Your task to perform on an android device: install app "Lyft - Rideshare, Bikes, Scooters & Transit" Image 0: 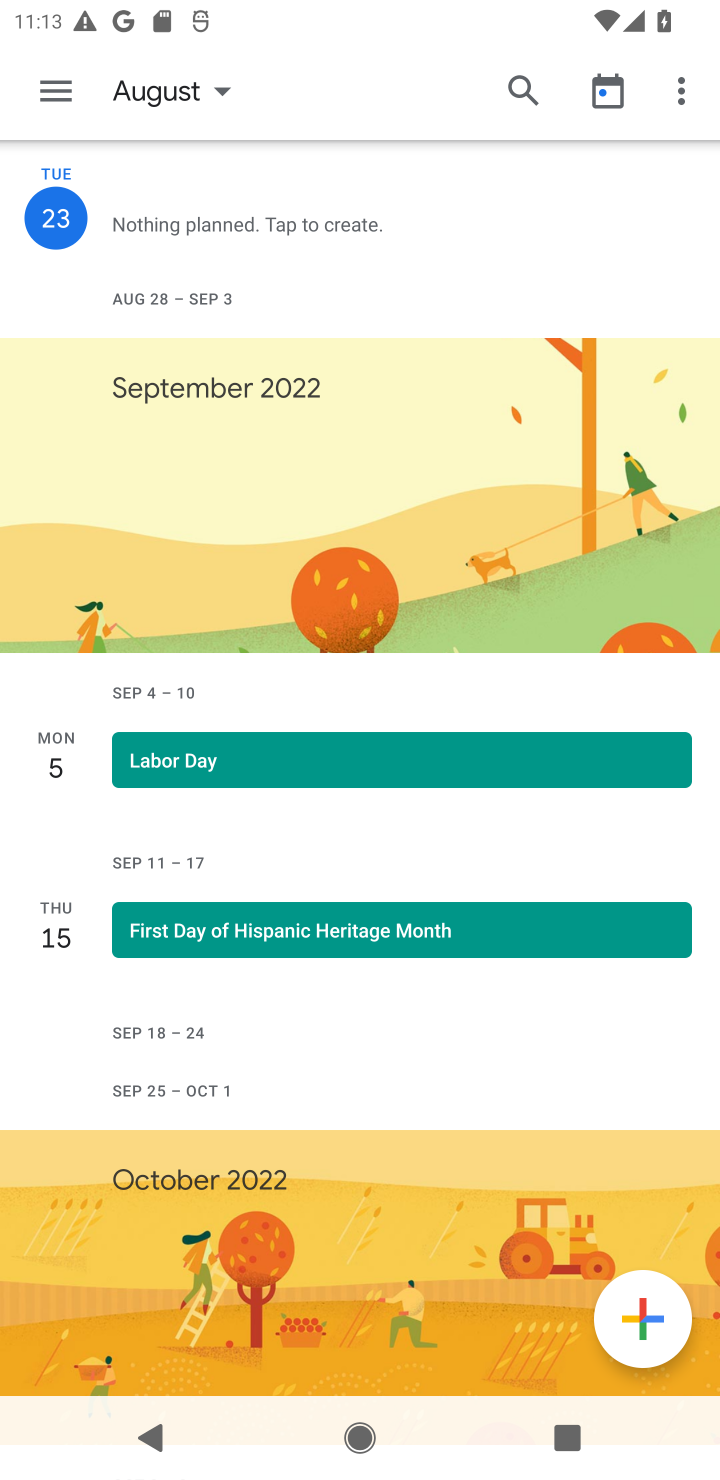
Step 0: press home button
Your task to perform on an android device: install app "Lyft - Rideshare, Bikes, Scooters & Transit" Image 1: 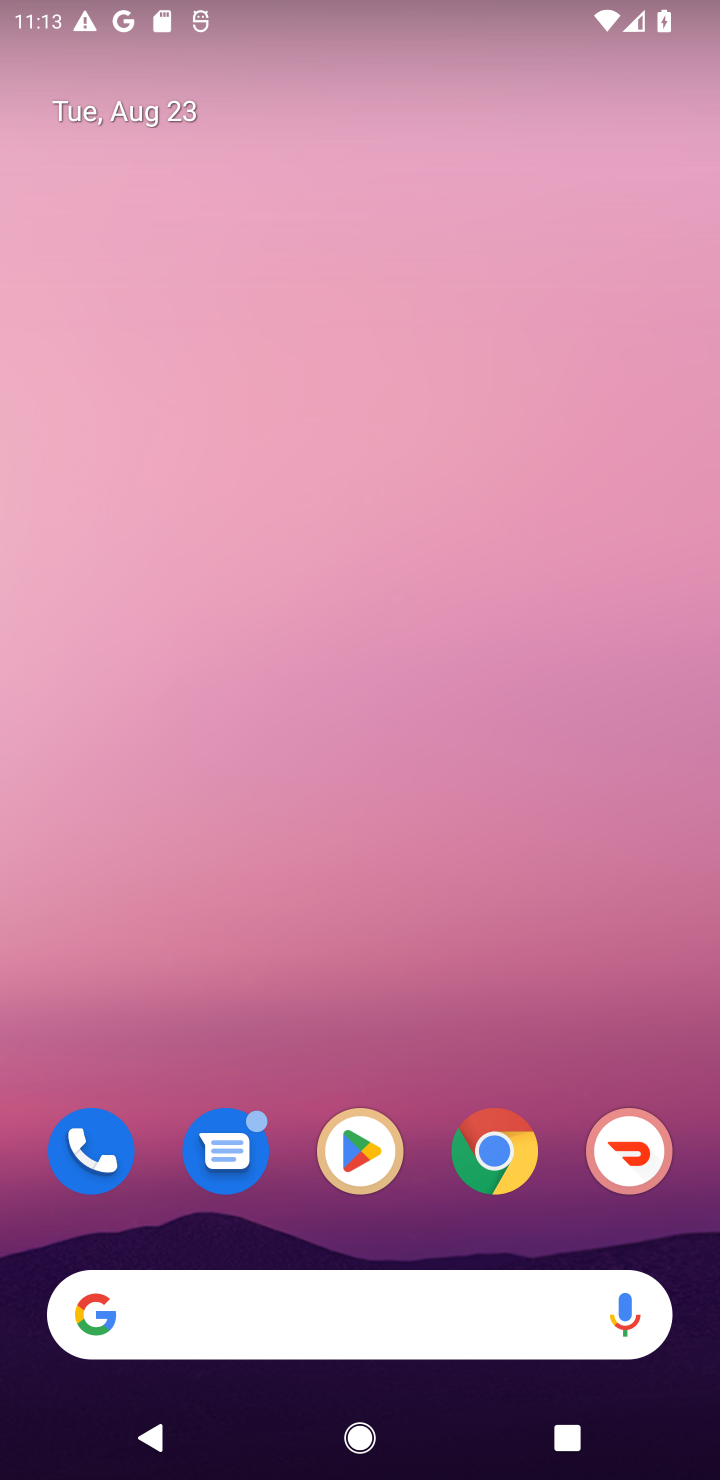
Step 1: click (391, 1165)
Your task to perform on an android device: install app "Lyft - Rideshare, Bikes, Scooters & Transit" Image 2: 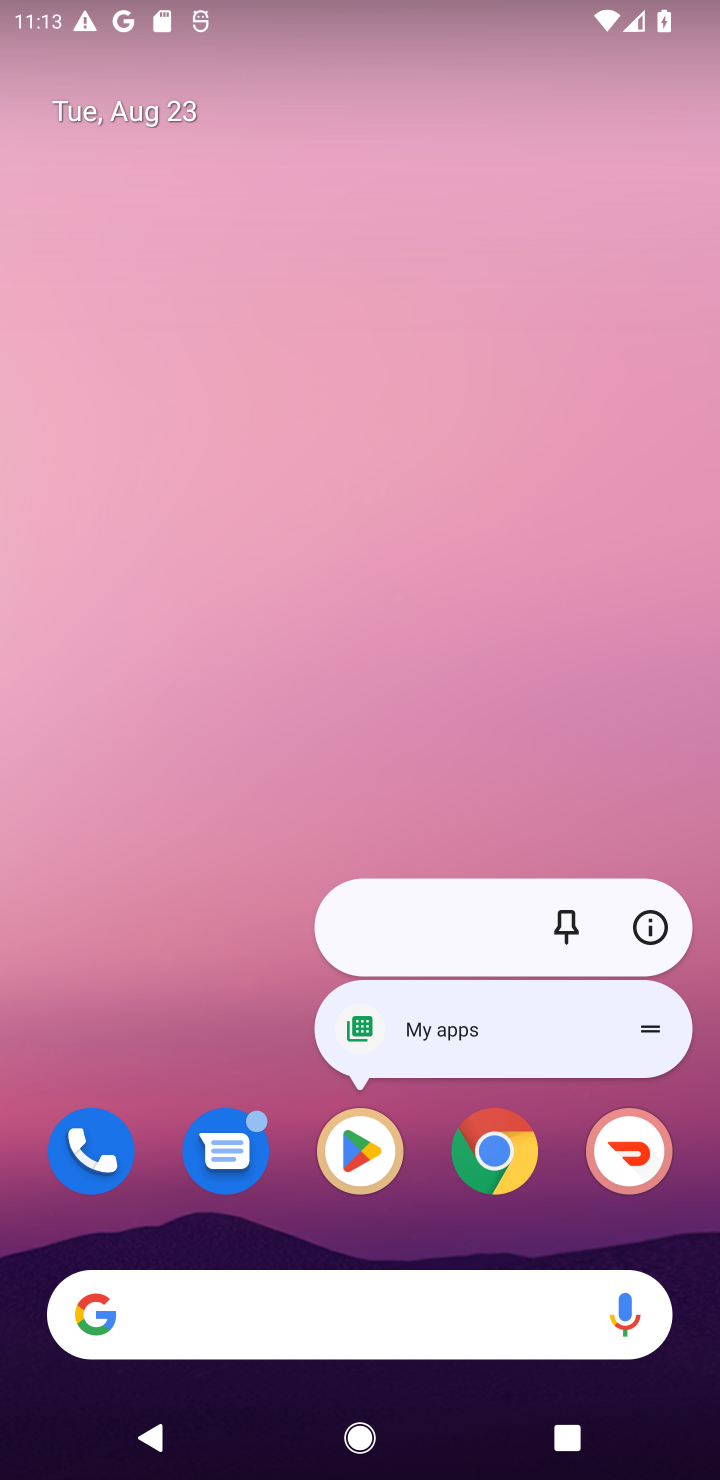
Step 2: click (393, 1167)
Your task to perform on an android device: install app "Lyft - Rideshare, Bikes, Scooters & Transit" Image 3: 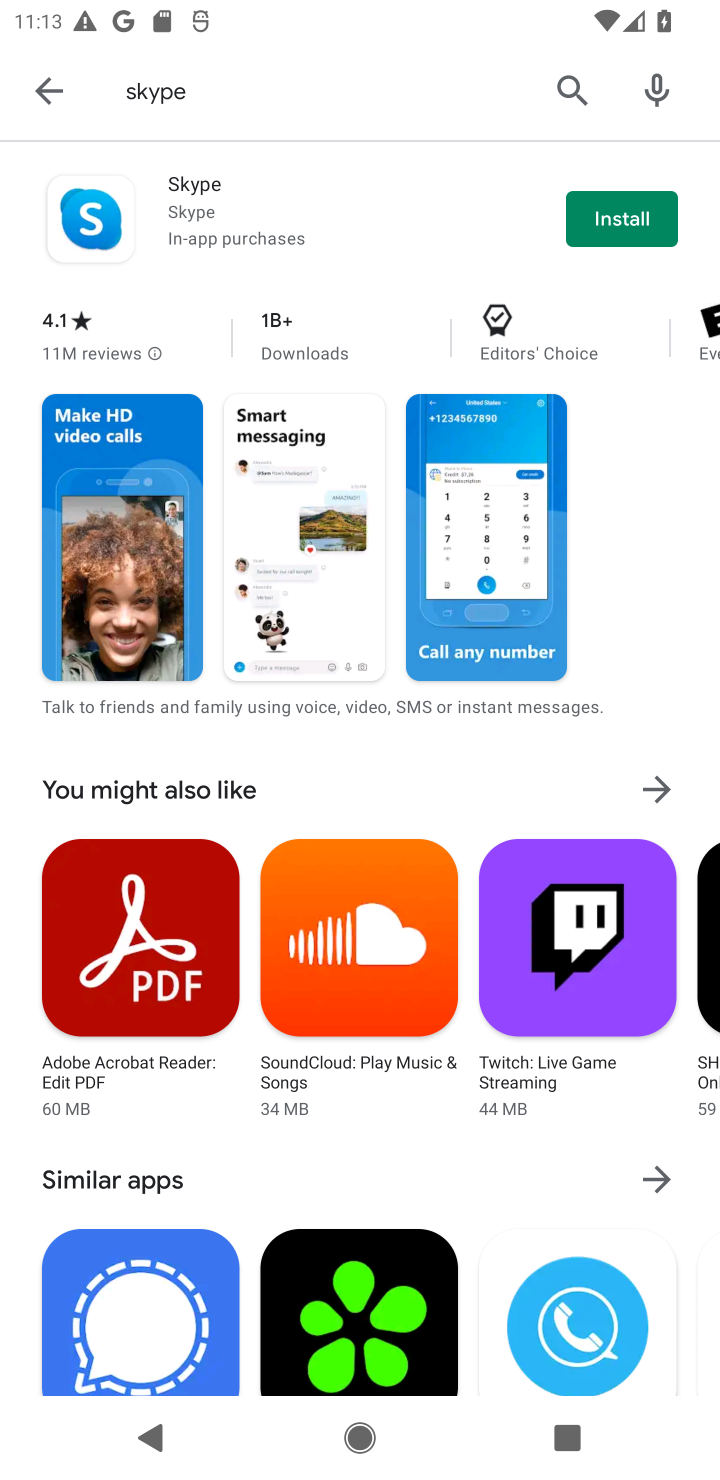
Step 3: click (557, 78)
Your task to perform on an android device: install app "Lyft - Rideshare, Bikes, Scooters & Transit" Image 4: 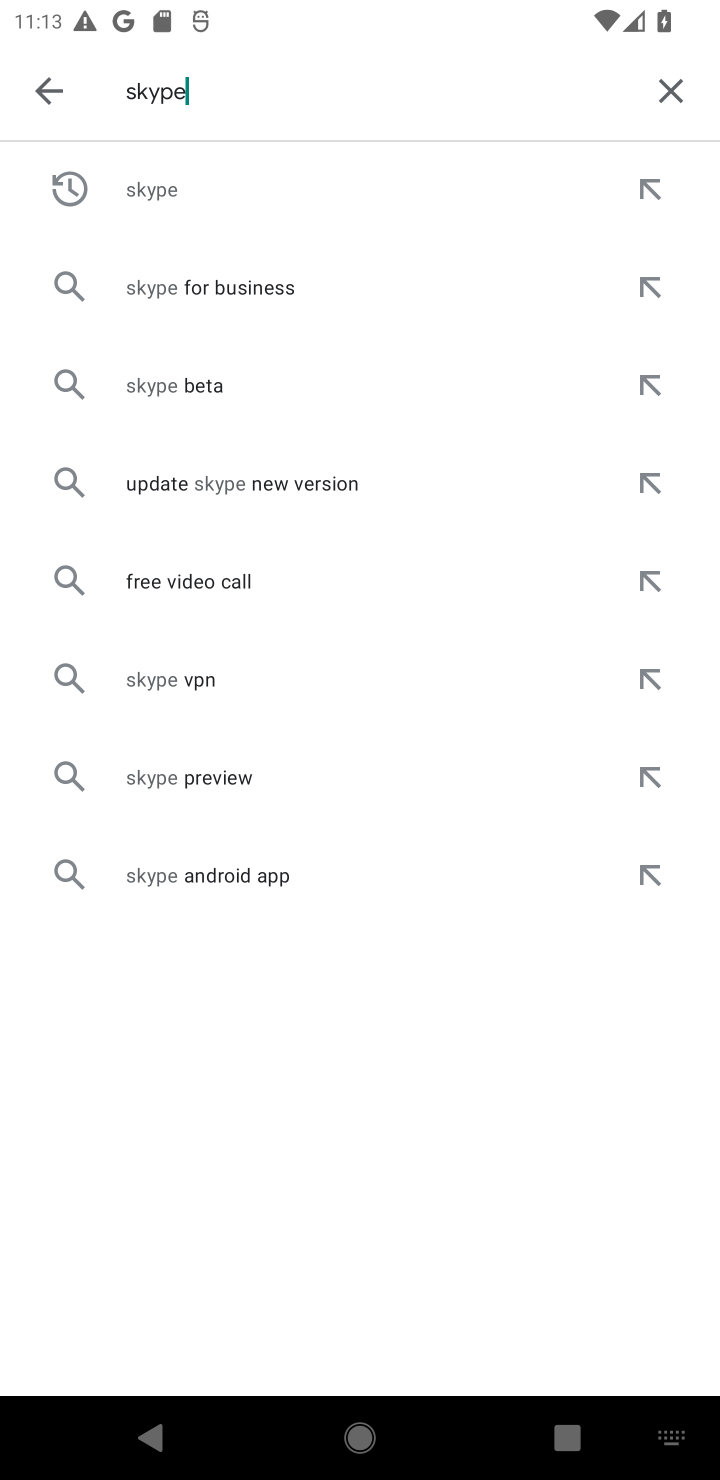
Step 4: click (652, 82)
Your task to perform on an android device: install app "Lyft - Rideshare, Bikes, Scooters & Transit" Image 5: 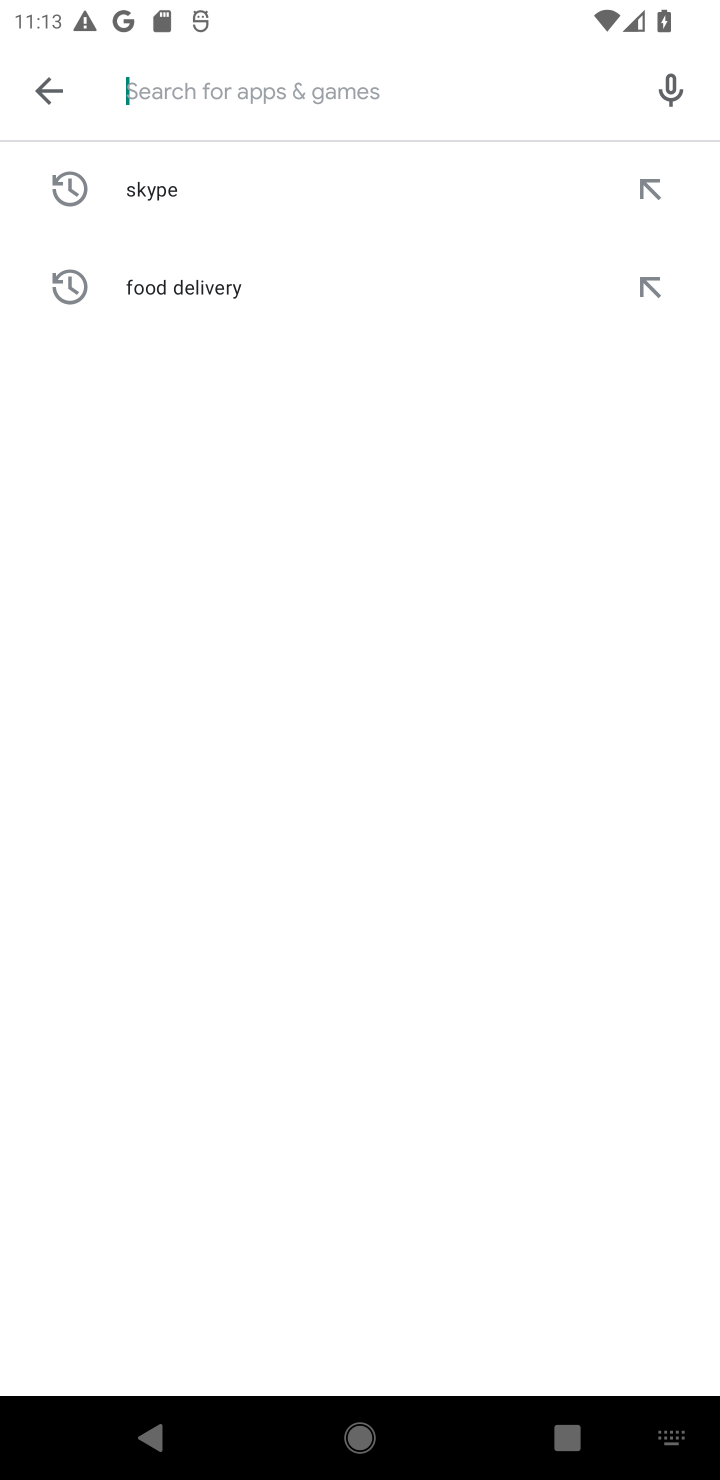
Step 5: type "Lyft"
Your task to perform on an android device: install app "Lyft - Rideshare, Bikes, Scooters & Transit" Image 6: 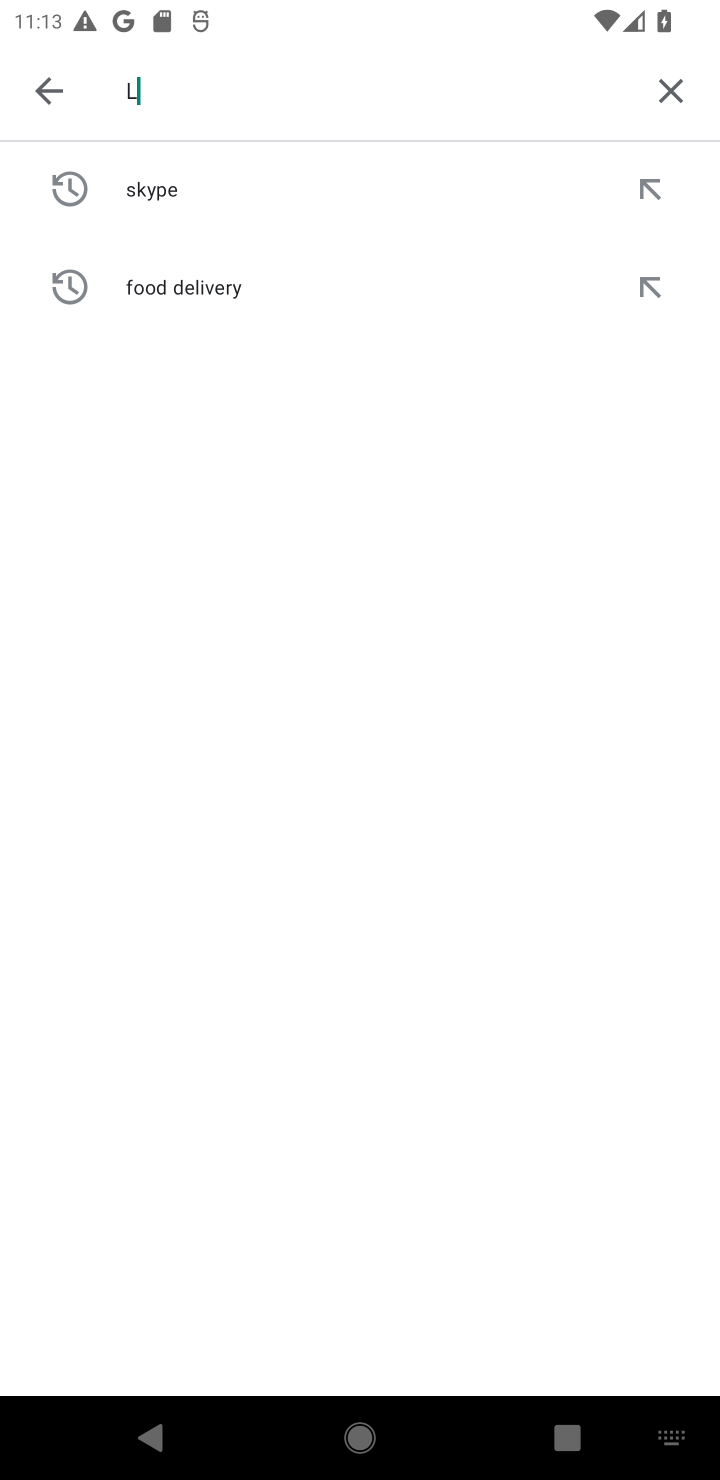
Step 6: type ""
Your task to perform on an android device: install app "Lyft - Rideshare, Bikes, Scooters & Transit" Image 7: 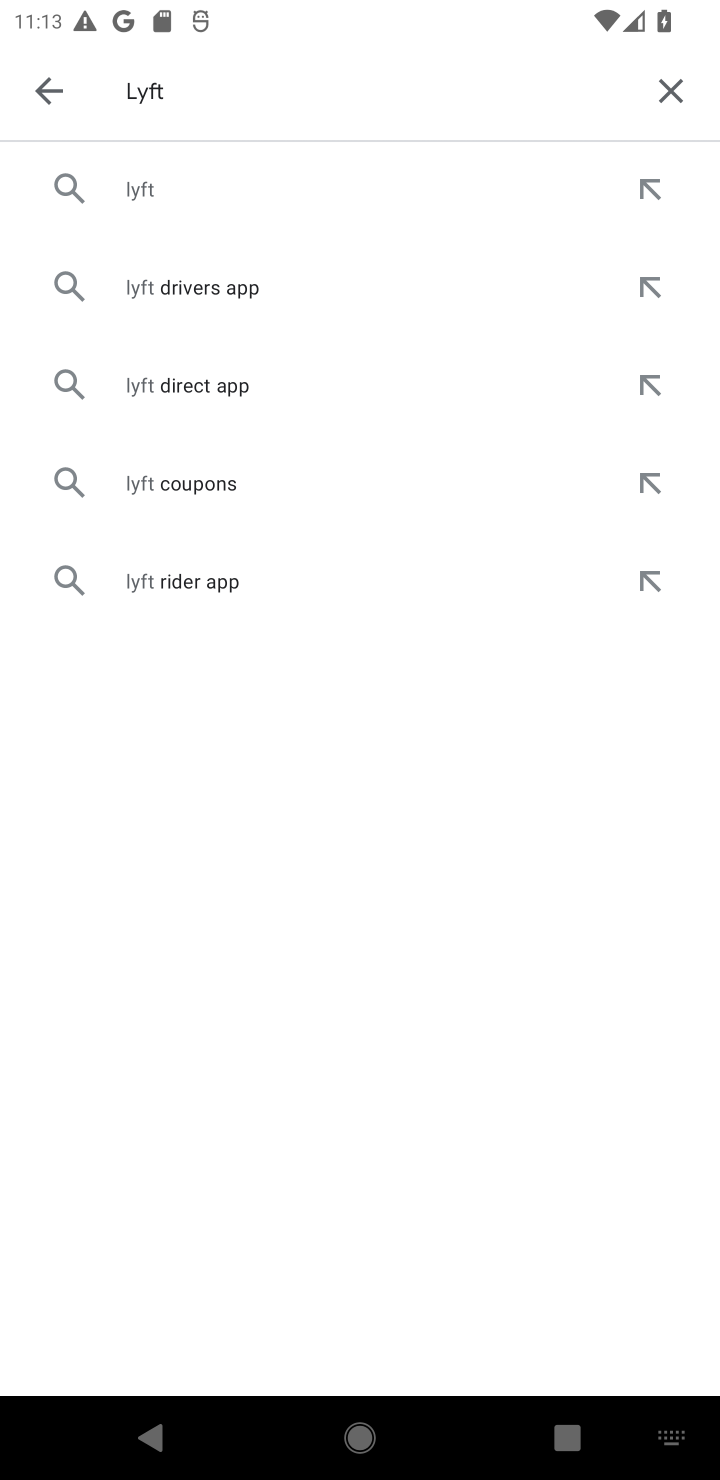
Step 7: click (159, 186)
Your task to perform on an android device: install app "Lyft - Rideshare, Bikes, Scooters & Transit" Image 8: 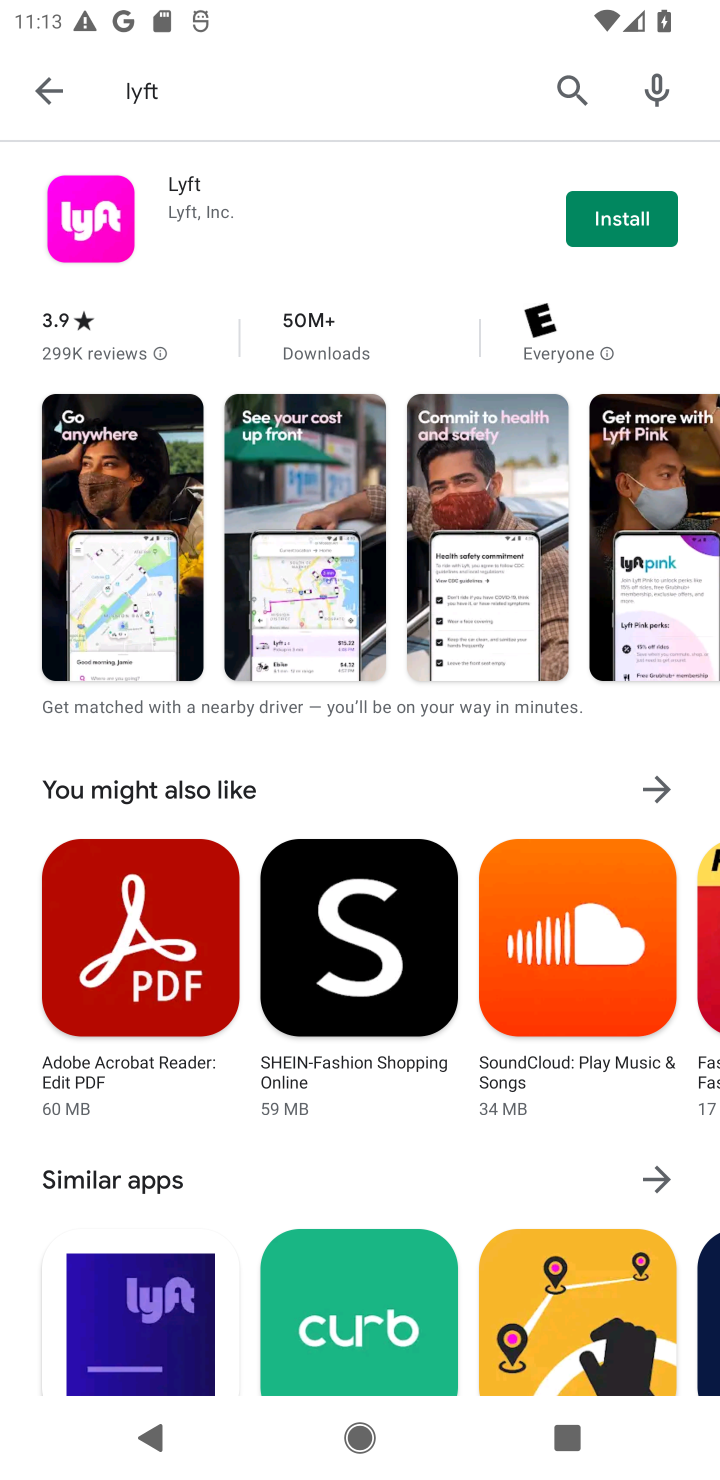
Step 8: click (650, 231)
Your task to perform on an android device: install app "Lyft - Rideshare, Bikes, Scooters & Transit" Image 9: 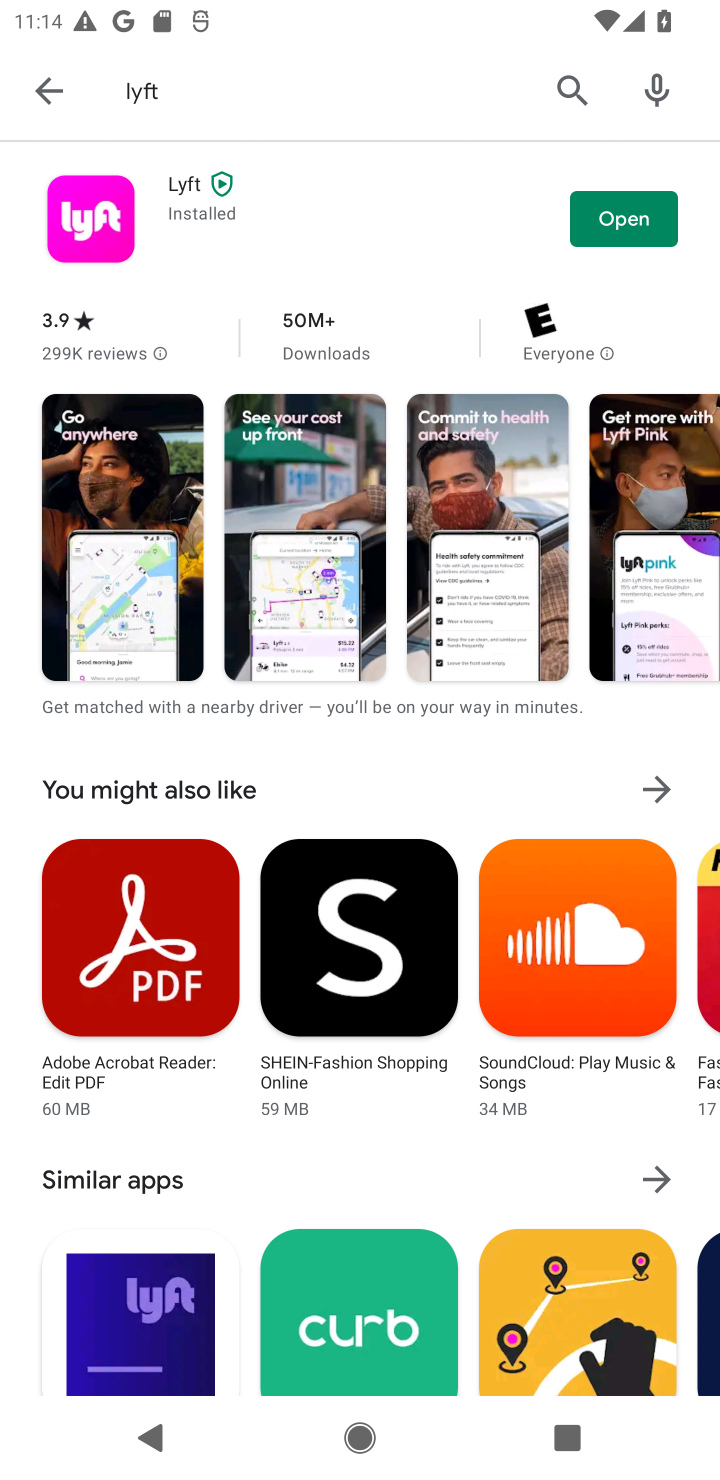
Step 9: task complete